Your task to perform on an android device: Search for a nightstand on IKEA. Image 0: 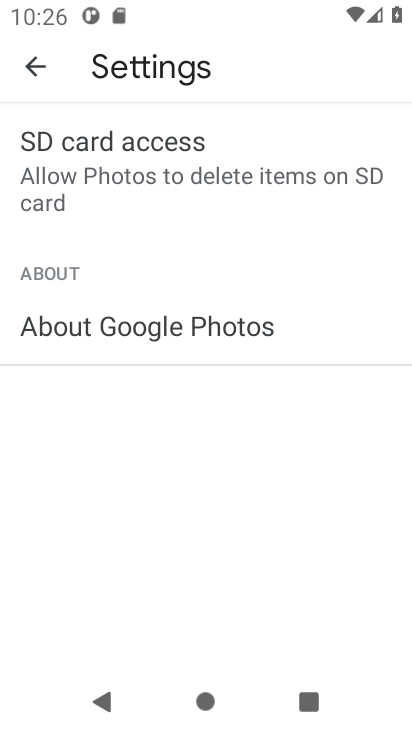
Step 0: press home button
Your task to perform on an android device: Search for a nightstand on IKEA. Image 1: 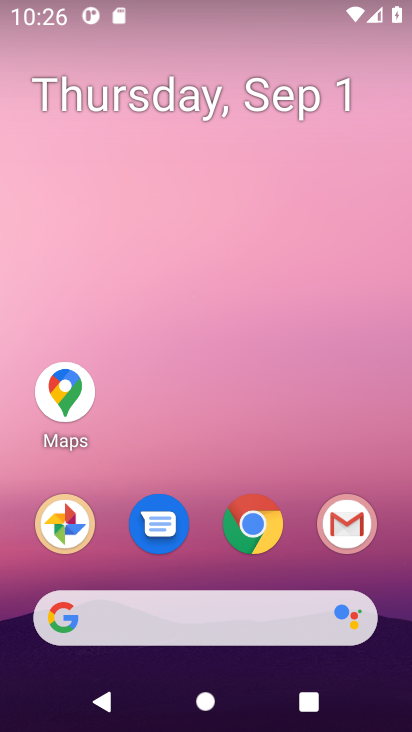
Step 1: click (204, 616)
Your task to perform on an android device: Search for a nightstand on IKEA. Image 2: 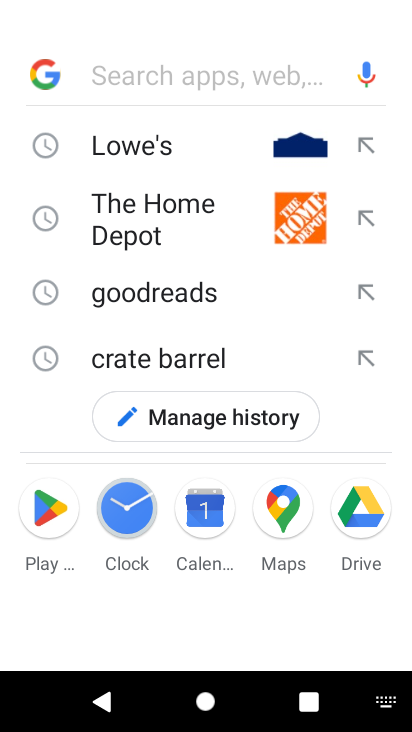
Step 2: press enter
Your task to perform on an android device: Search for a nightstand on IKEA. Image 3: 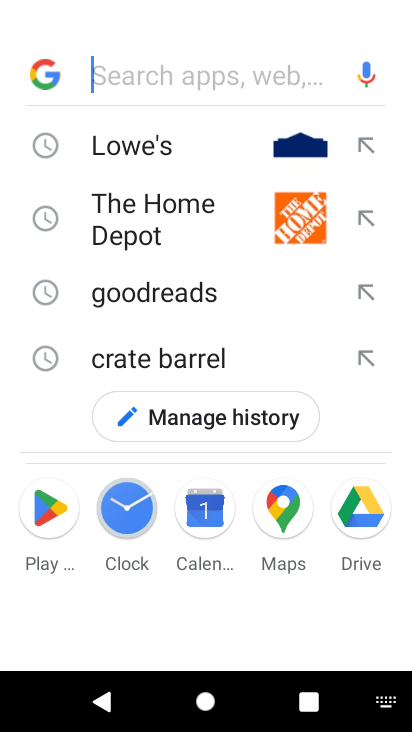
Step 3: type "ikea"
Your task to perform on an android device: Search for a nightstand on IKEA. Image 4: 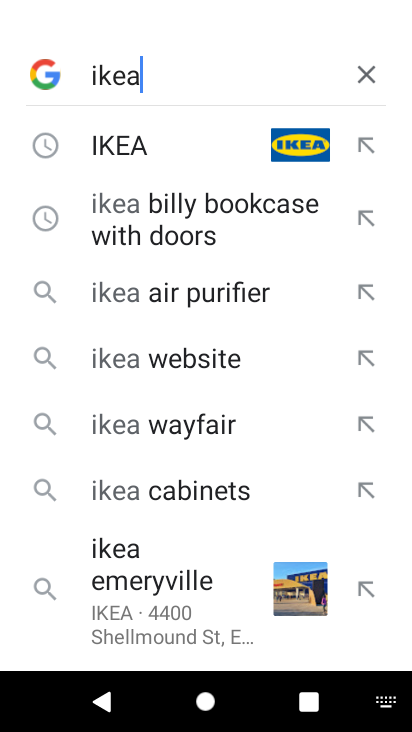
Step 4: click (140, 143)
Your task to perform on an android device: Search for a nightstand on IKEA. Image 5: 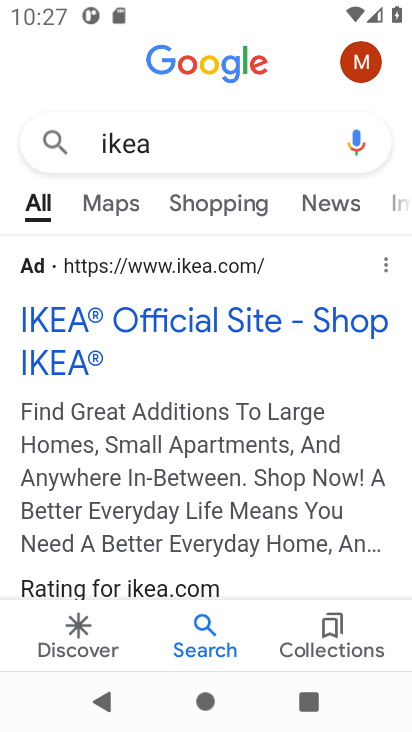
Step 5: click (261, 311)
Your task to perform on an android device: Search for a nightstand on IKEA. Image 6: 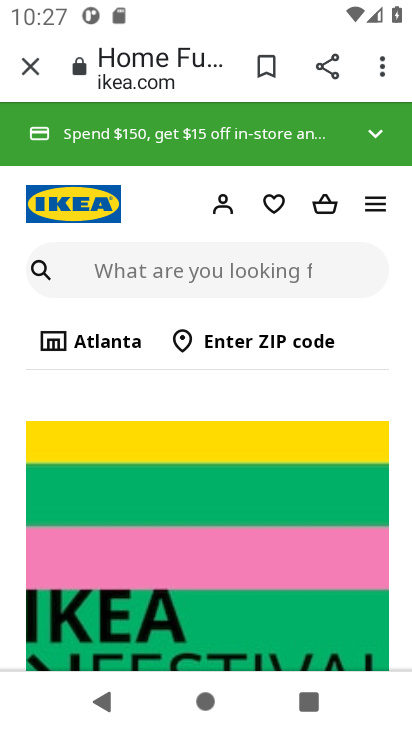
Step 6: click (263, 267)
Your task to perform on an android device: Search for a nightstand on IKEA. Image 7: 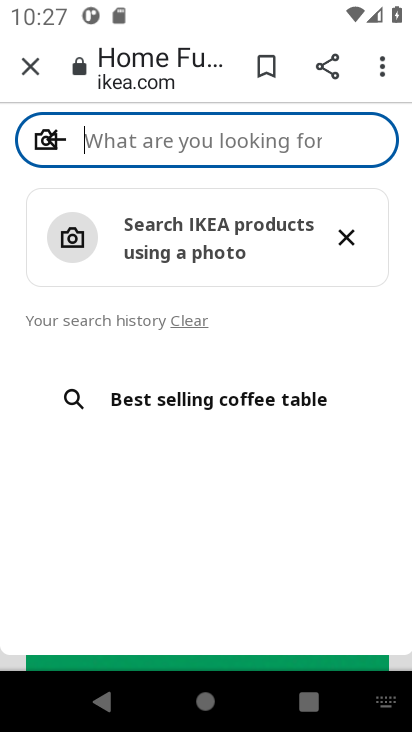
Step 7: type "nightstand "
Your task to perform on an android device: Search for a nightstand on IKEA. Image 8: 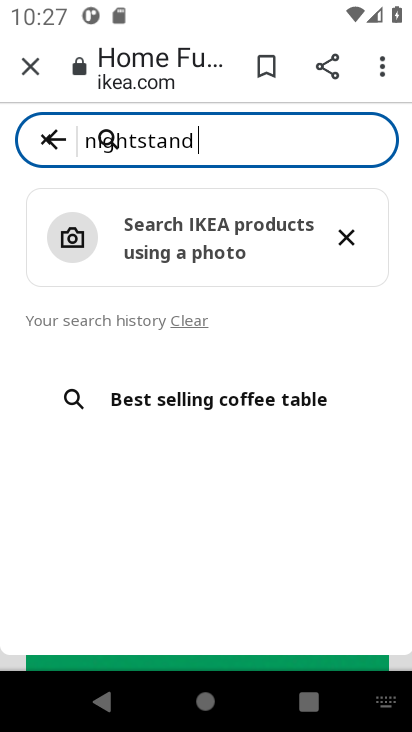
Step 8: press enter
Your task to perform on an android device: Search for a nightstand on IKEA. Image 9: 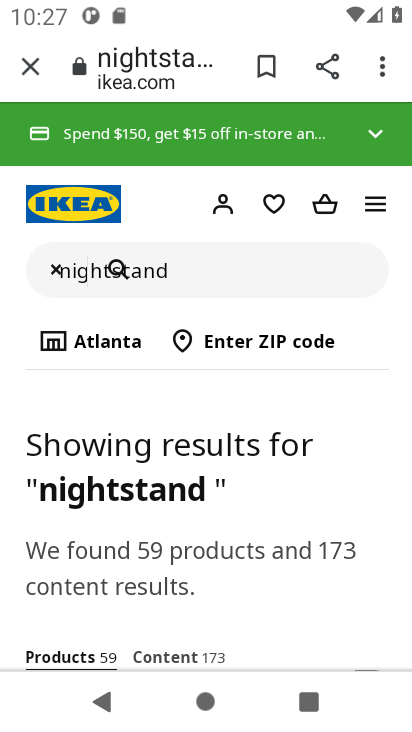
Step 9: task complete